Your task to perform on an android device: Open ESPN.com Image 0: 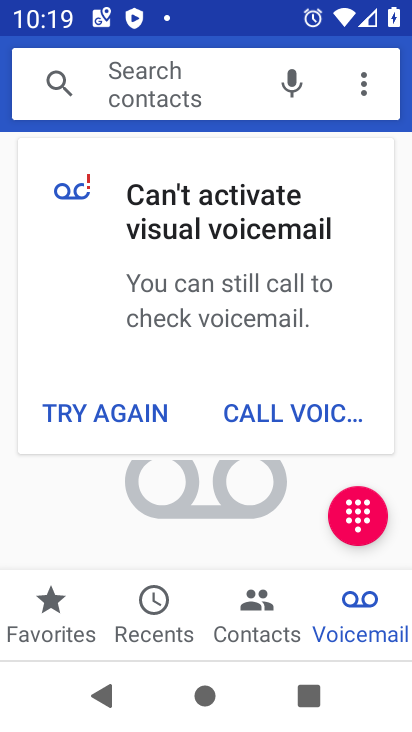
Step 0: press home button
Your task to perform on an android device: Open ESPN.com Image 1: 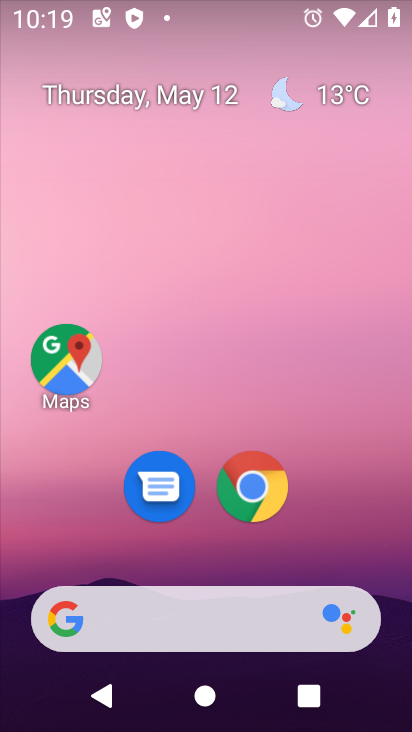
Step 1: click (272, 486)
Your task to perform on an android device: Open ESPN.com Image 2: 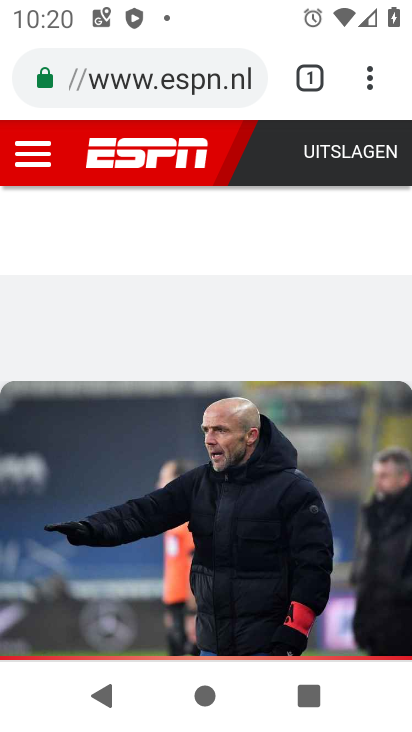
Step 2: task complete